Your task to perform on an android device: manage bookmarks in the chrome app Image 0: 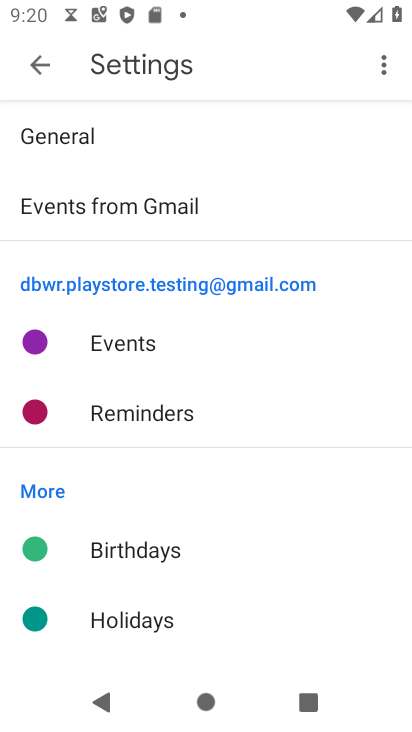
Step 0: press home button
Your task to perform on an android device: manage bookmarks in the chrome app Image 1: 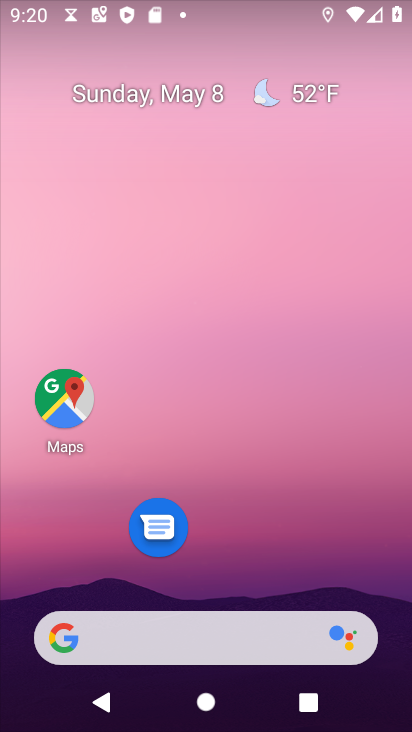
Step 1: drag from (244, 531) to (231, 65)
Your task to perform on an android device: manage bookmarks in the chrome app Image 2: 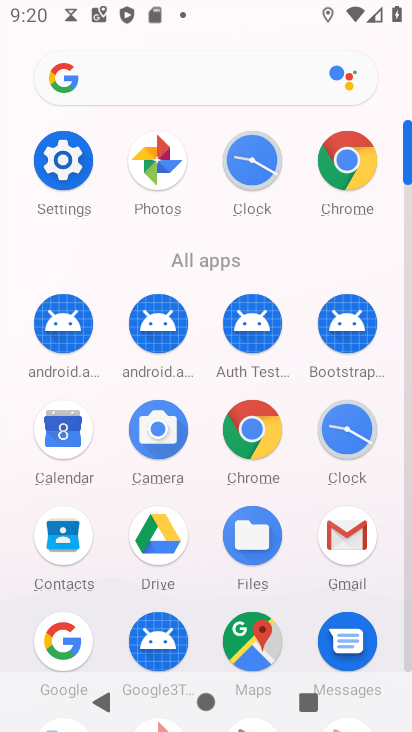
Step 2: click (350, 163)
Your task to perform on an android device: manage bookmarks in the chrome app Image 3: 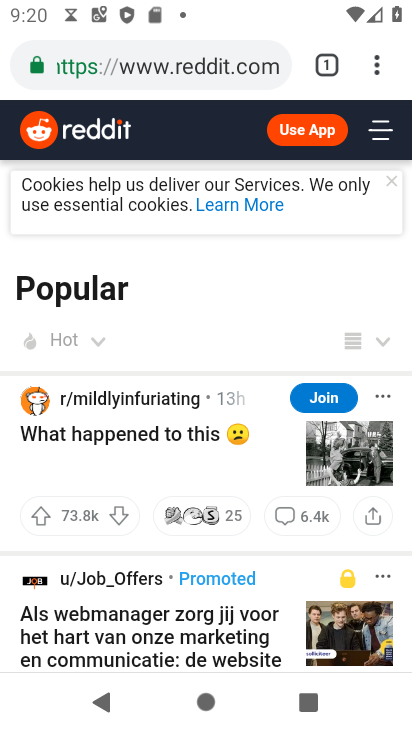
Step 3: click (378, 64)
Your task to perform on an android device: manage bookmarks in the chrome app Image 4: 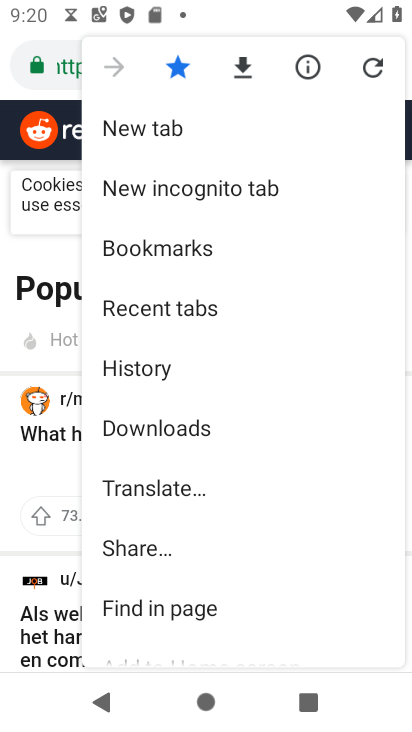
Step 4: click (197, 251)
Your task to perform on an android device: manage bookmarks in the chrome app Image 5: 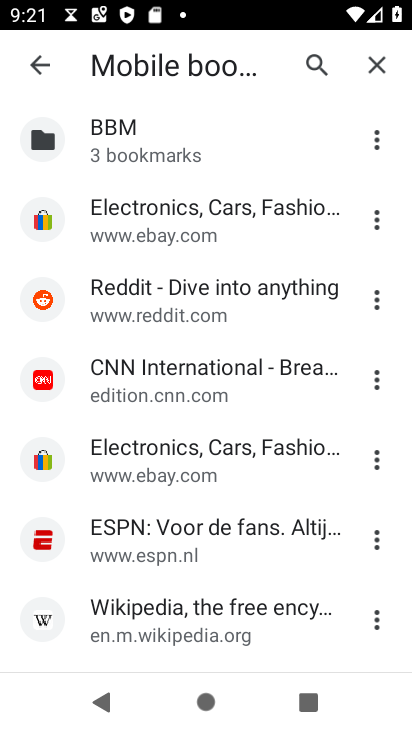
Step 5: click (380, 224)
Your task to perform on an android device: manage bookmarks in the chrome app Image 6: 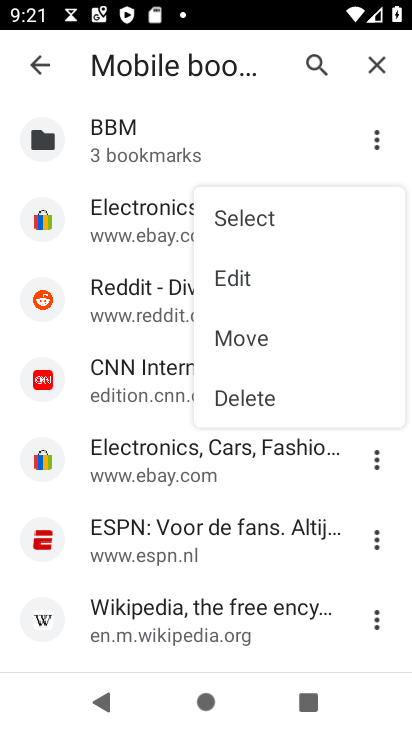
Step 6: click (238, 281)
Your task to perform on an android device: manage bookmarks in the chrome app Image 7: 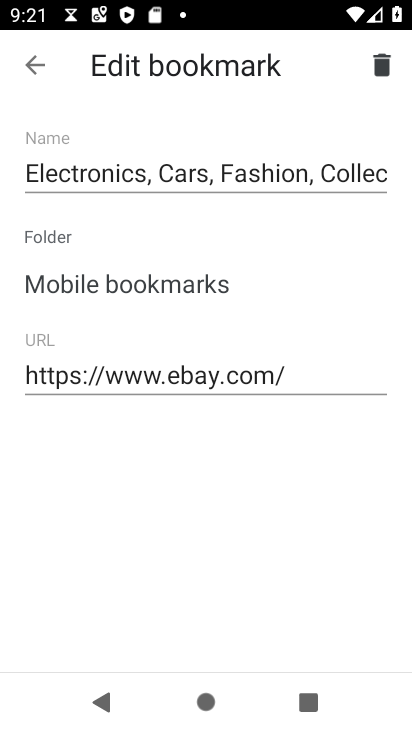
Step 7: click (383, 64)
Your task to perform on an android device: manage bookmarks in the chrome app Image 8: 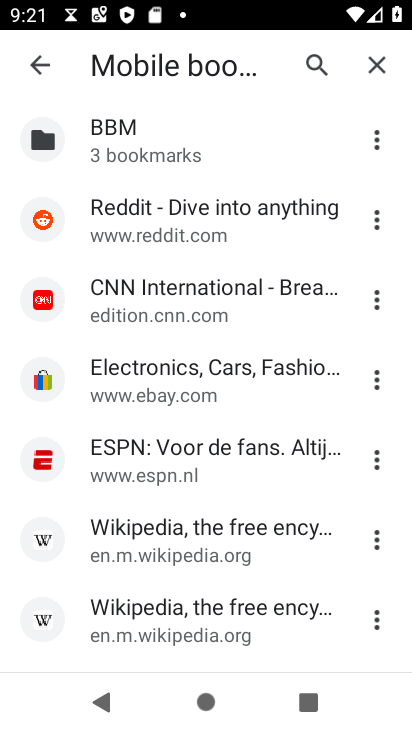
Step 8: task complete